Your task to perform on an android device: manage bookmarks in the chrome app Image 0: 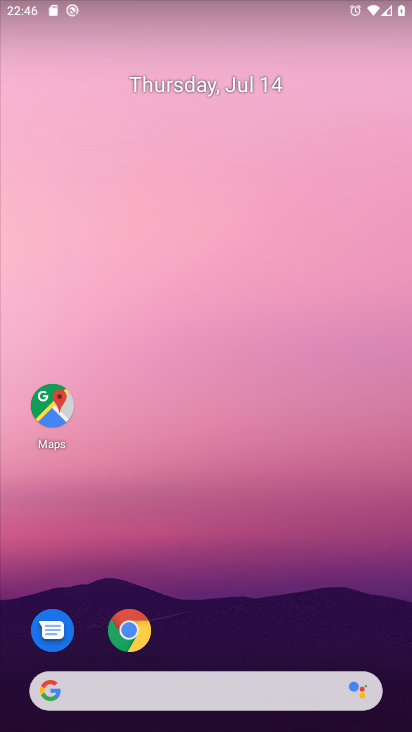
Step 0: drag from (196, 636) to (218, 6)
Your task to perform on an android device: manage bookmarks in the chrome app Image 1: 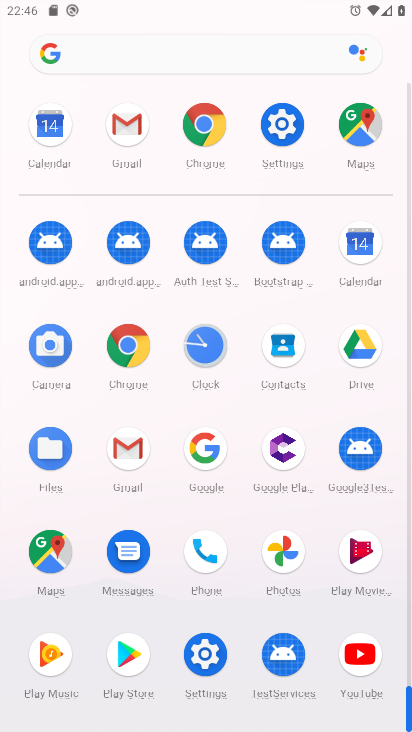
Step 1: click (122, 337)
Your task to perform on an android device: manage bookmarks in the chrome app Image 2: 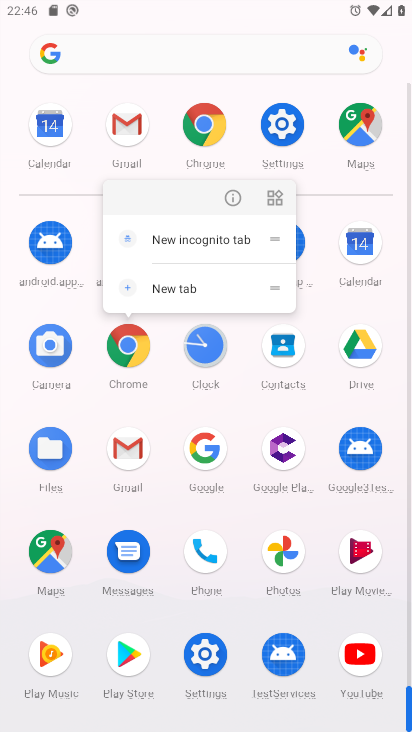
Step 2: click (238, 196)
Your task to perform on an android device: manage bookmarks in the chrome app Image 3: 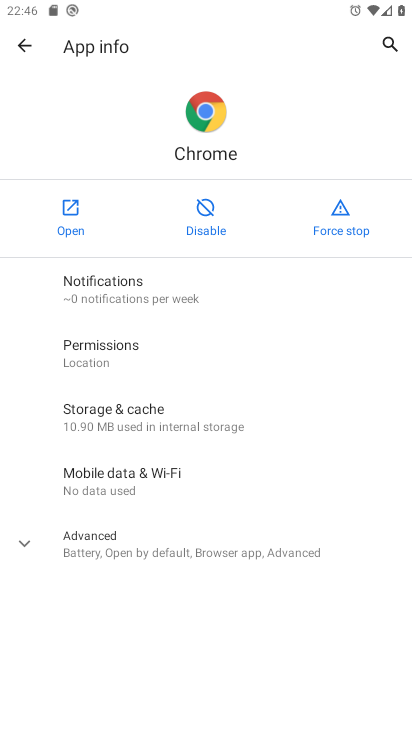
Step 3: click (76, 223)
Your task to perform on an android device: manage bookmarks in the chrome app Image 4: 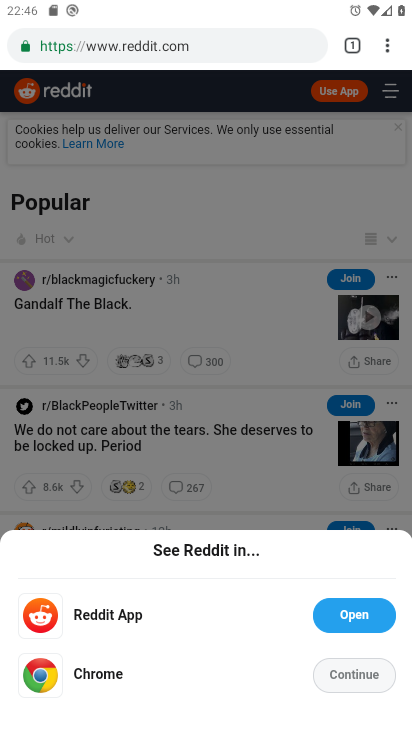
Step 4: drag from (229, 538) to (297, 203)
Your task to perform on an android device: manage bookmarks in the chrome app Image 5: 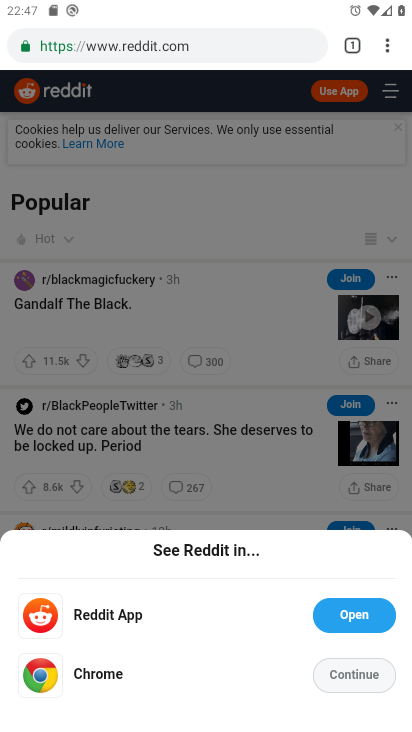
Step 5: click (387, 50)
Your task to perform on an android device: manage bookmarks in the chrome app Image 6: 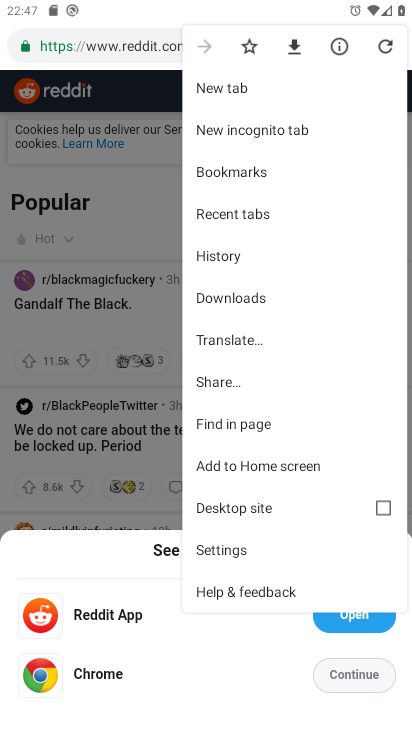
Step 6: click (254, 171)
Your task to perform on an android device: manage bookmarks in the chrome app Image 7: 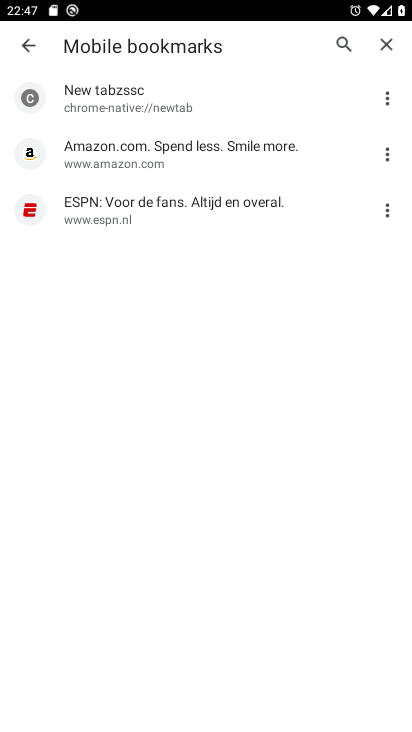
Step 7: click (384, 150)
Your task to perform on an android device: manage bookmarks in the chrome app Image 8: 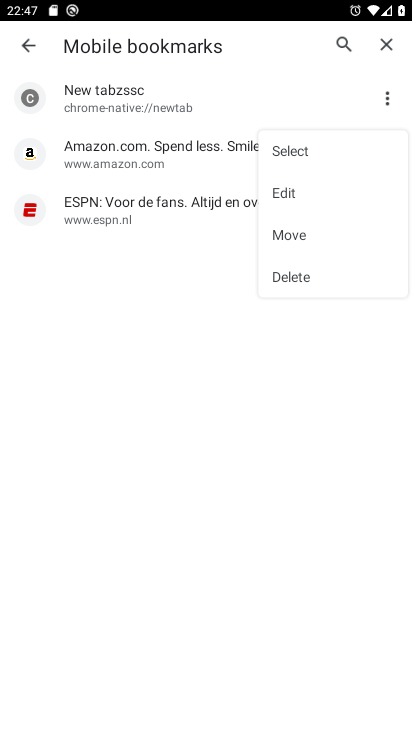
Step 8: click (51, 137)
Your task to perform on an android device: manage bookmarks in the chrome app Image 9: 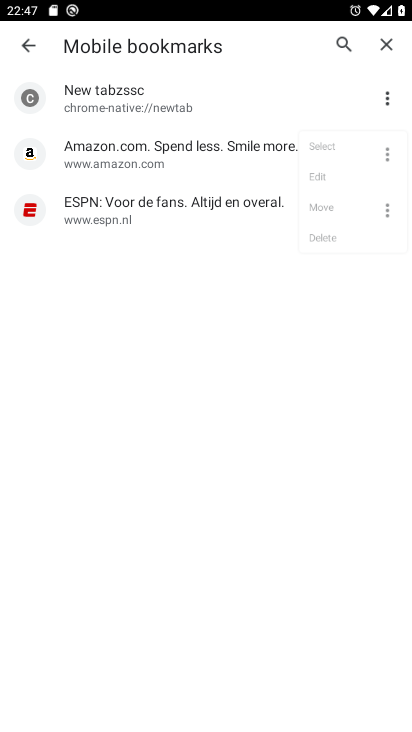
Step 9: click (51, 137)
Your task to perform on an android device: manage bookmarks in the chrome app Image 10: 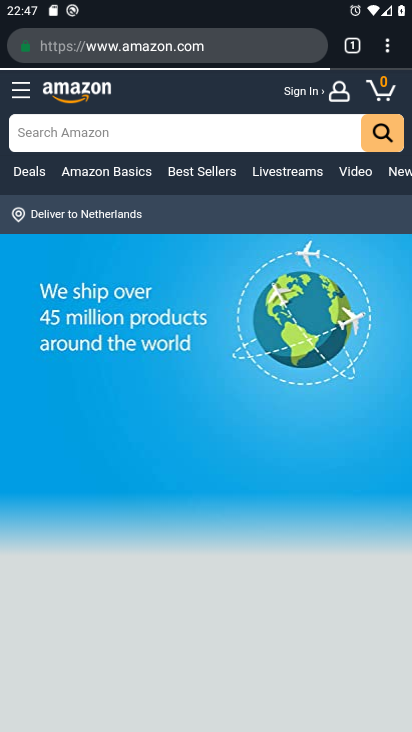
Step 10: task complete